Your task to perform on an android device: turn on airplane mode Image 0: 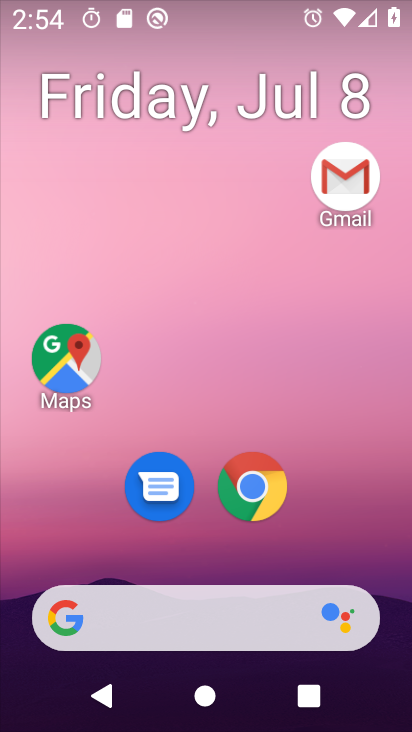
Step 0: drag from (366, 529) to (369, 136)
Your task to perform on an android device: turn on airplane mode Image 1: 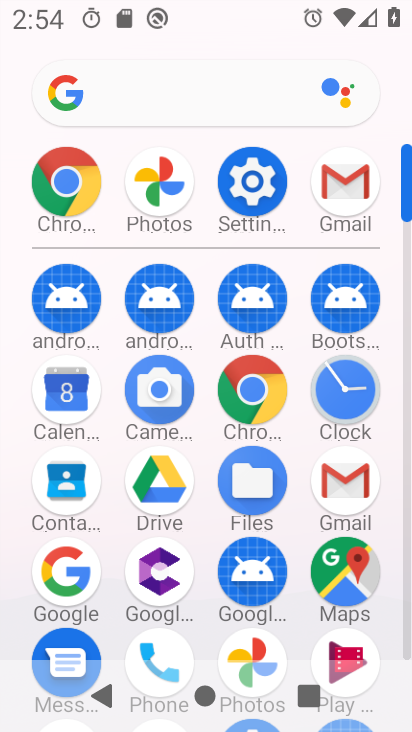
Step 1: click (267, 190)
Your task to perform on an android device: turn on airplane mode Image 2: 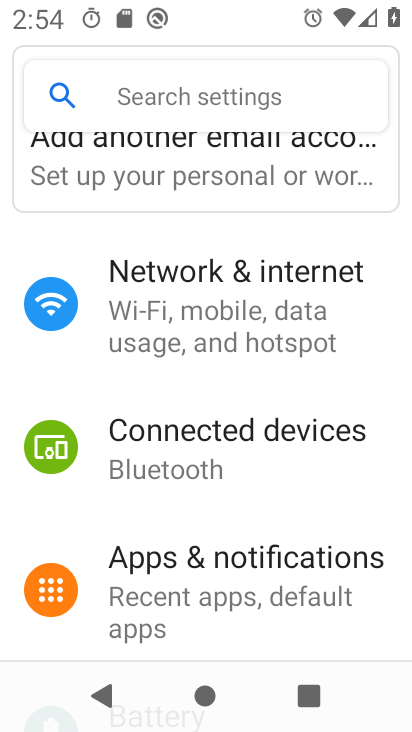
Step 2: click (266, 325)
Your task to perform on an android device: turn on airplane mode Image 3: 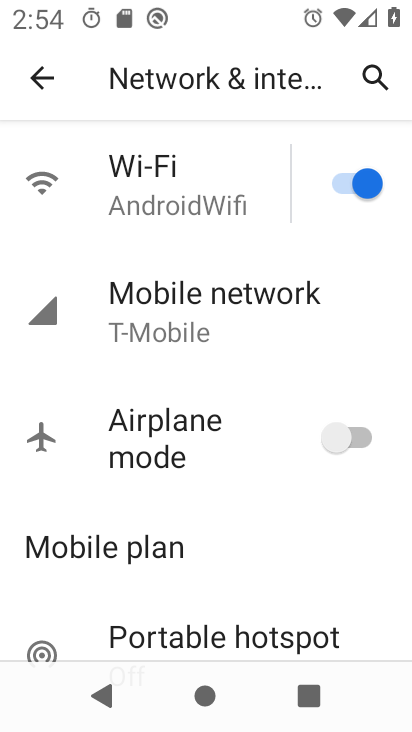
Step 3: click (327, 451)
Your task to perform on an android device: turn on airplane mode Image 4: 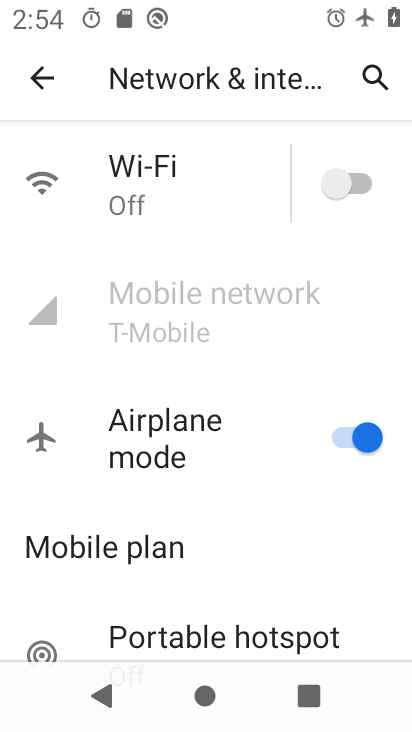
Step 4: task complete